Your task to perform on an android device: uninstall "Chime – Mobile Banking" Image 0: 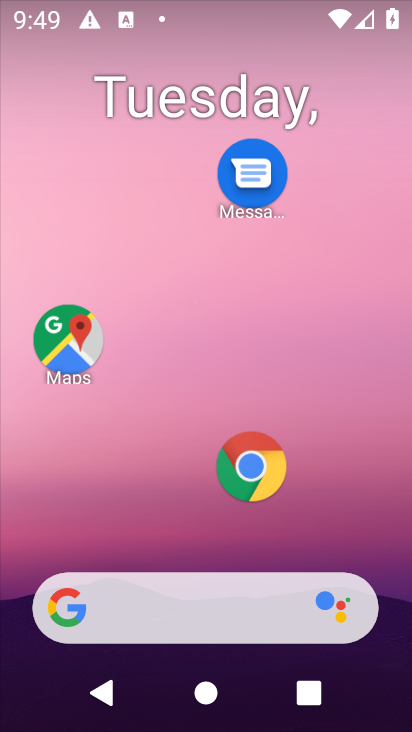
Step 0: drag from (136, 475) to (221, 142)
Your task to perform on an android device: uninstall "Chime – Mobile Banking" Image 1: 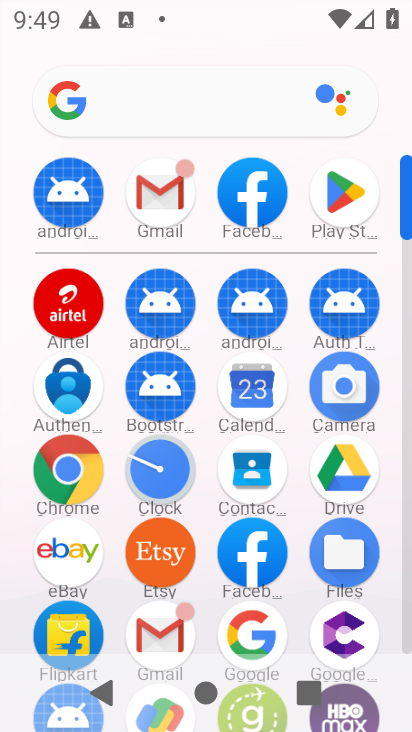
Step 1: click (335, 187)
Your task to perform on an android device: uninstall "Chime – Mobile Banking" Image 2: 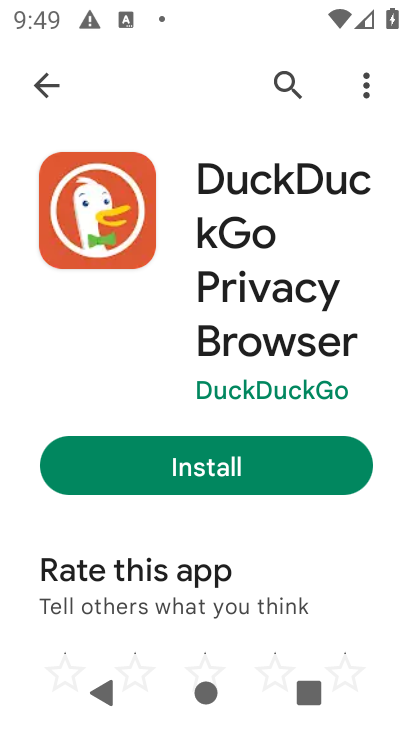
Step 2: click (270, 74)
Your task to perform on an android device: uninstall "Chime – Mobile Banking" Image 3: 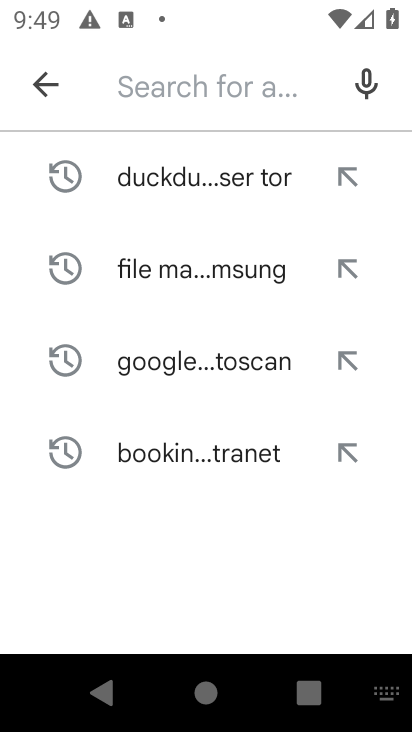
Step 3: click (169, 80)
Your task to perform on an android device: uninstall "Chime – Mobile Banking" Image 4: 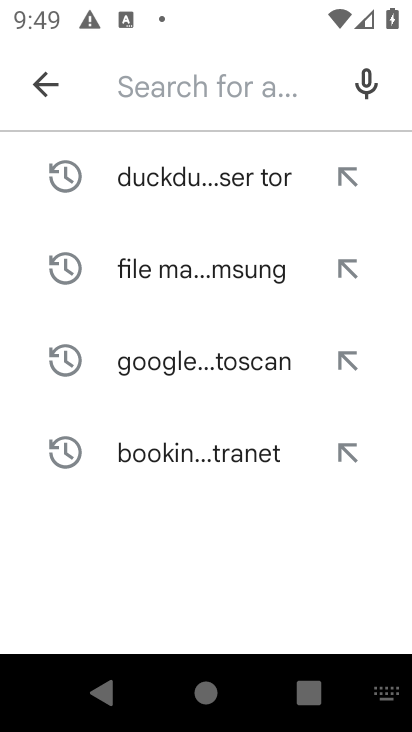
Step 4: type "Chime"
Your task to perform on an android device: uninstall "Chime – Mobile Banking" Image 5: 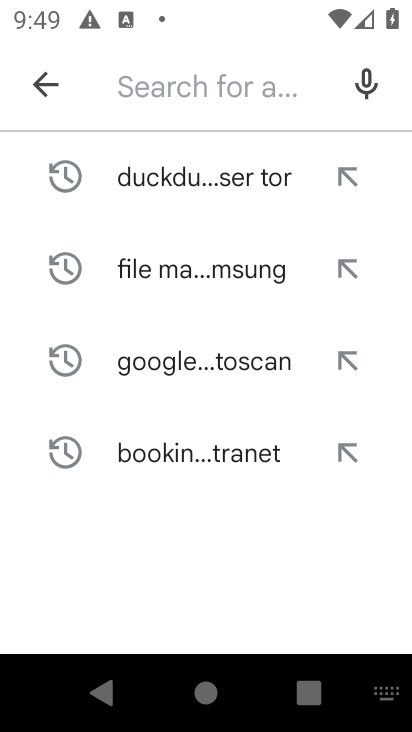
Step 5: click (220, 567)
Your task to perform on an android device: uninstall "Chime – Mobile Banking" Image 6: 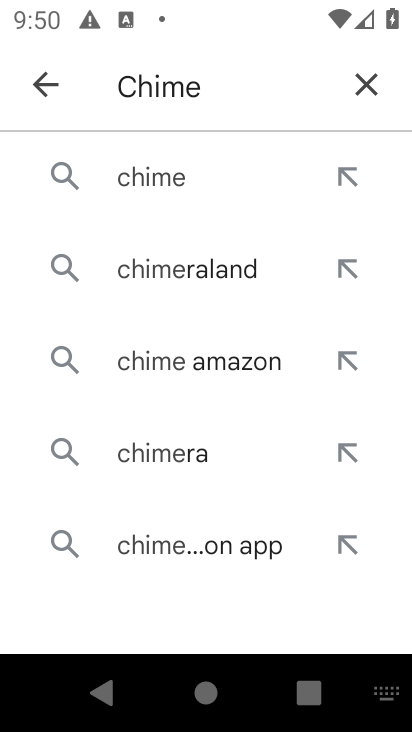
Step 6: click (191, 175)
Your task to perform on an android device: uninstall "Chime – Mobile Banking" Image 7: 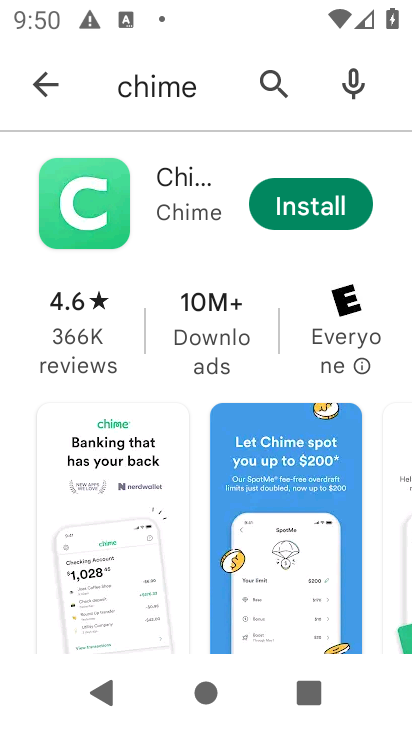
Step 7: click (211, 200)
Your task to perform on an android device: uninstall "Chime – Mobile Banking" Image 8: 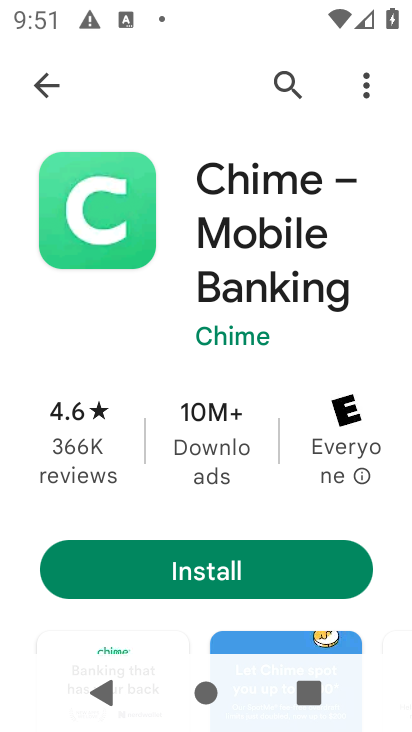
Step 8: task complete